Your task to perform on an android device: Open ESPN.com Image 0: 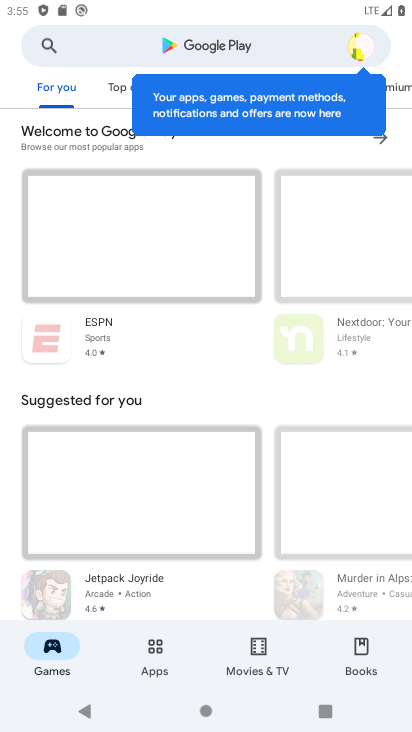
Step 0: press back button
Your task to perform on an android device: Open ESPN.com Image 1: 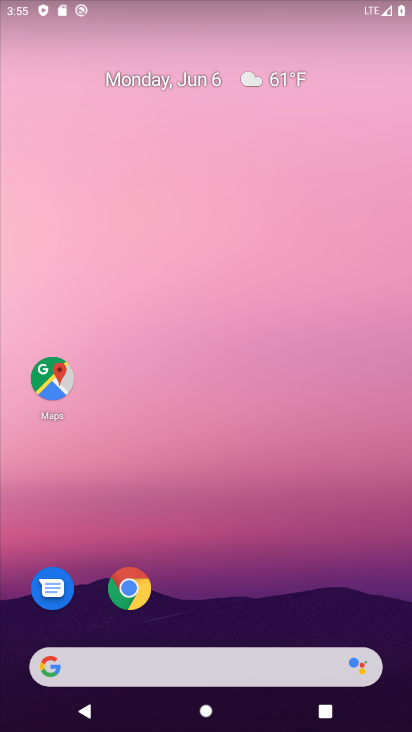
Step 1: drag from (236, 664) to (194, 253)
Your task to perform on an android device: Open ESPN.com Image 2: 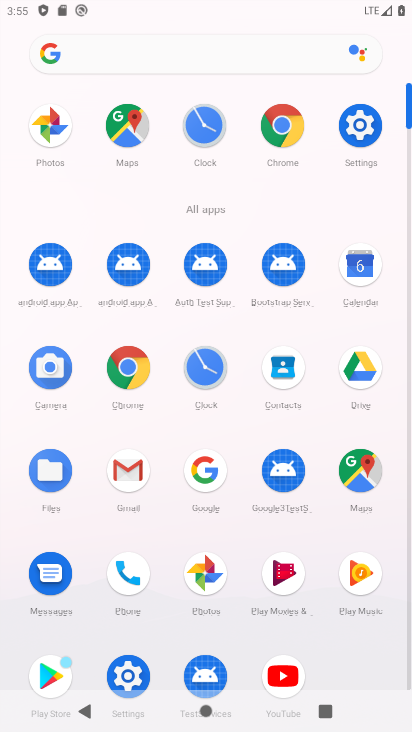
Step 2: click (283, 122)
Your task to perform on an android device: Open ESPN.com Image 3: 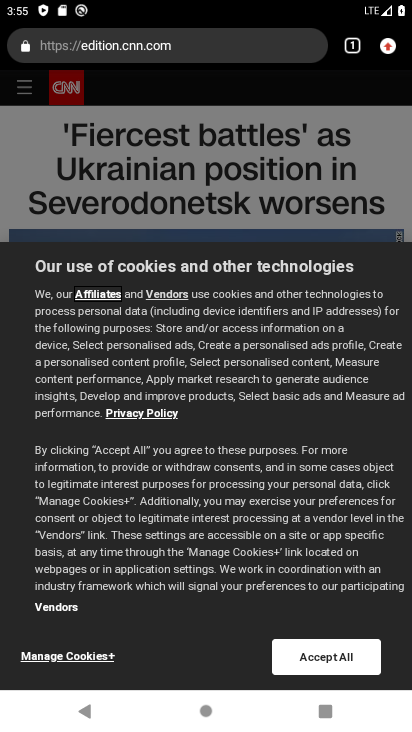
Step 3: click (182, 43)
Your task to perform on an android device: Open ESPN.com Image 4: 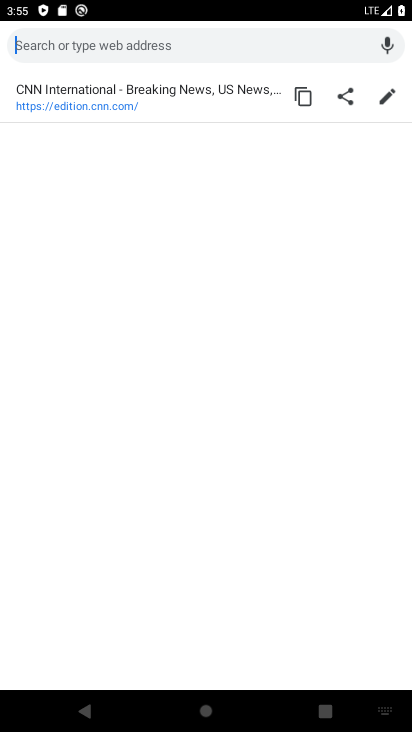
Step 4: press back button
Your task to perform on an android device: Open ESPN.com Image 5: 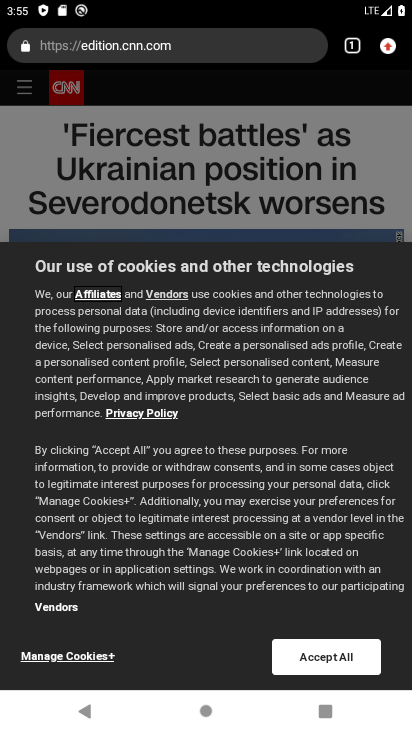
Step 5: drag from (391, 44) to (217, 136)
Your task to perform on an android device: Open ESPN.com Image 6: 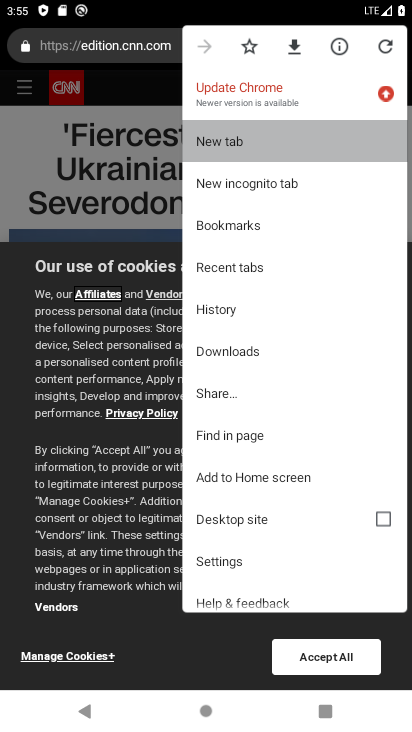
Step 6: click (217, 137)
Your task to perform on an android device: Open ESPN.com Image 7: 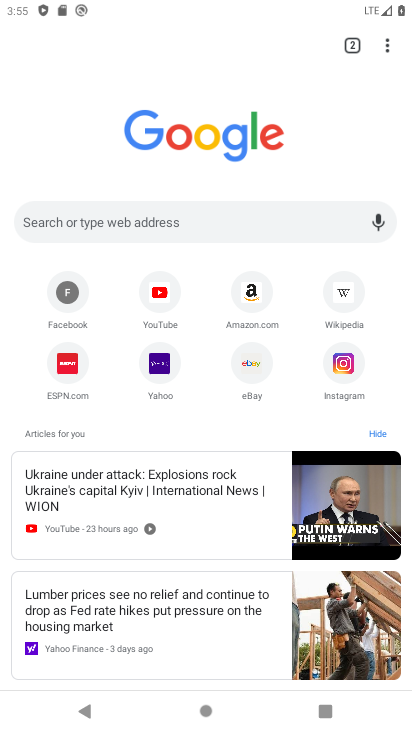
Step 7: click (62, 366)
Your task to perform on an android device: Open ESPN.com Image 8: 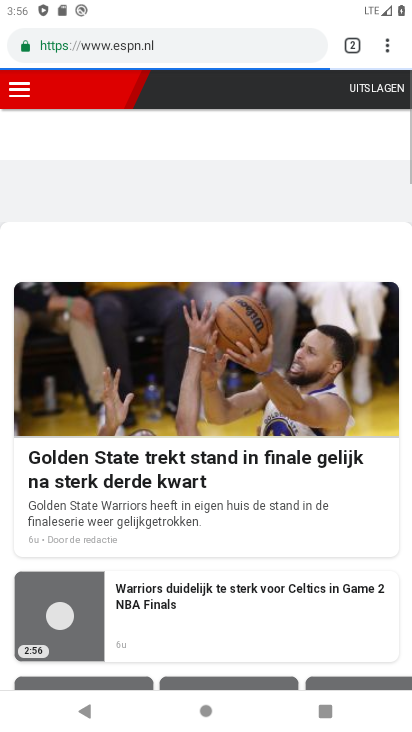
Step 8: task complete